Your task to perform on an android device: Open Google Maps and go to "Timeline" Image 0: 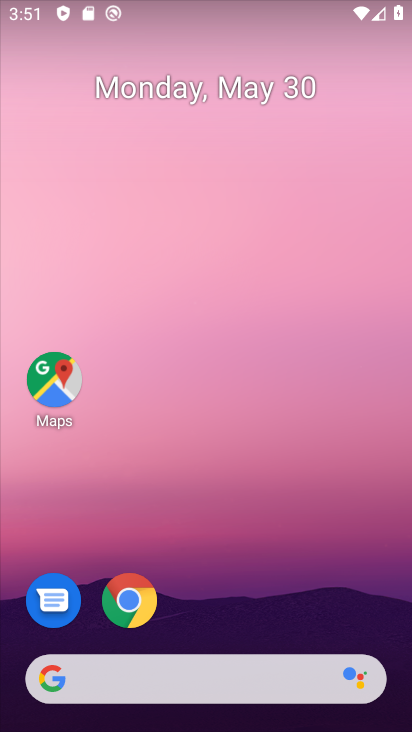
Step 0: drag from (266, 622) to (264, 30)
Your task to perform on an android device: Open Google Maps and go to "Timeline" Image 1: 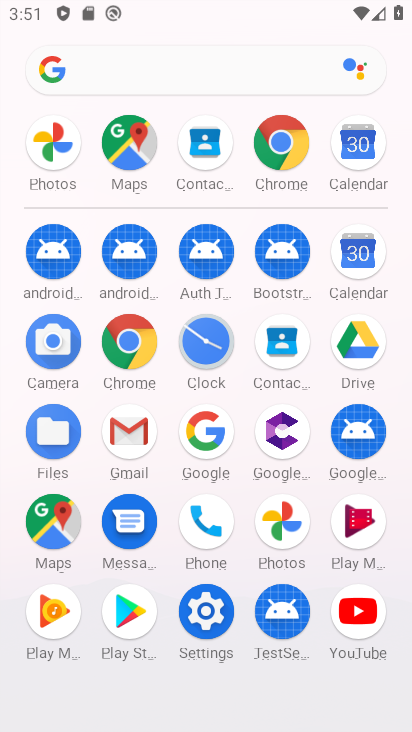
Step 1: click (134, 151)
Your task to perform on an android device: Open Google Maps and go to "Timeline" Image 2: 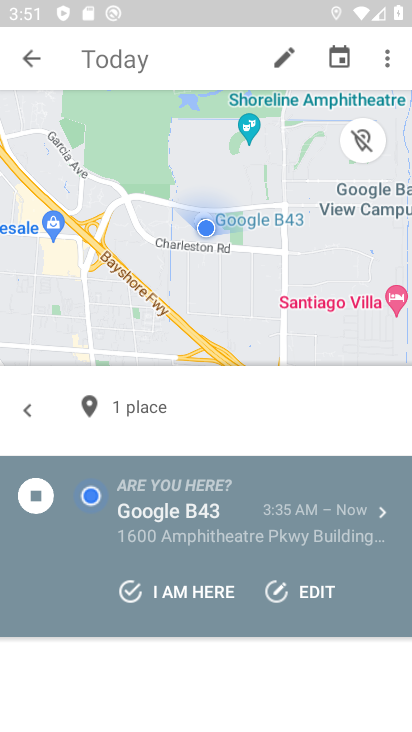
Step 2: task complete